Your task to perform on an android device: change alarm snooze length Image 0: 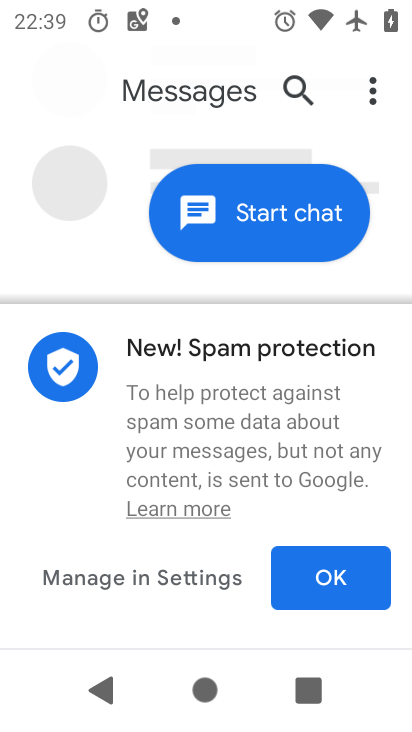
Step 0: press home button
Your task to perform on an android device: change alarm snooze length Image 1: 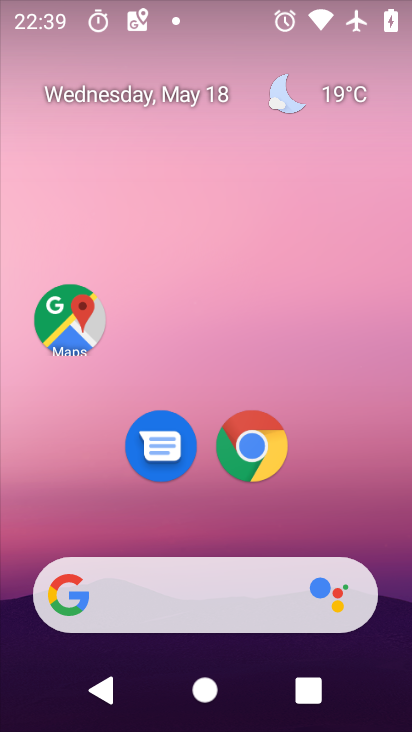
Step 1: drag from (127, 609) to (259, 167)
Your task to perform on an android device: change alarm snooze length Image 2: 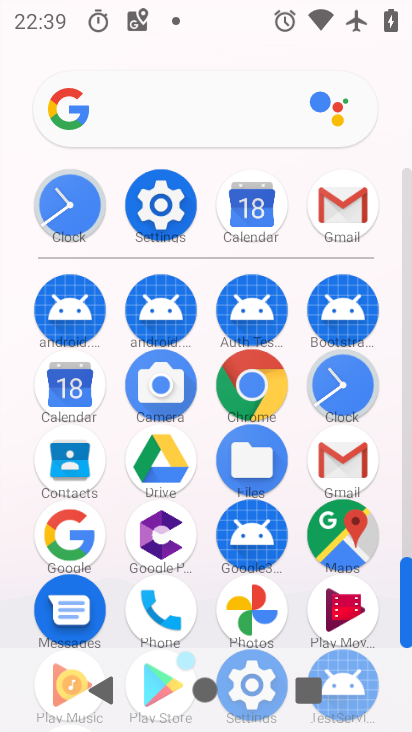
Step 2: click (85, 205)
Your task to perform on an android device: change alarm snooze length Image 3: 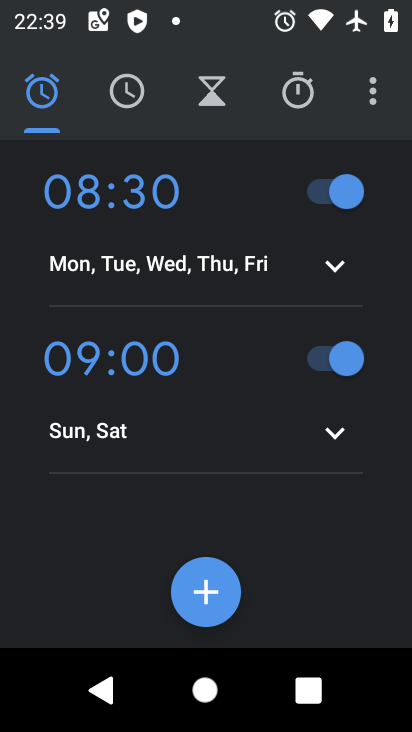
Step 3: click (370, 91)
Your task to perform on an android device: change alarm snooze length Image 4: 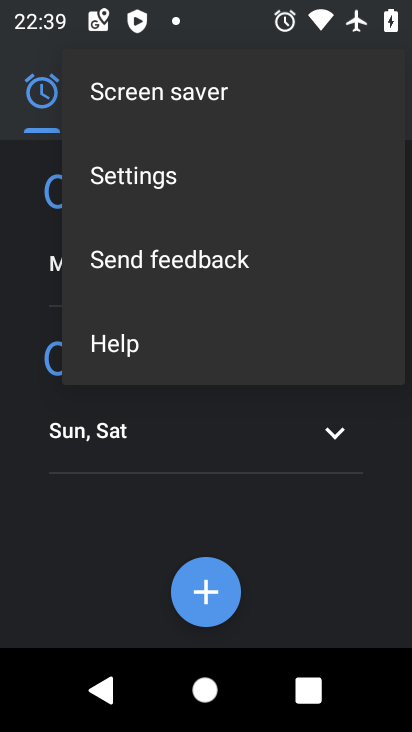
Step 4: click (159, 174)
Your task to perform on an android device: change alarm snooze length Image 5: 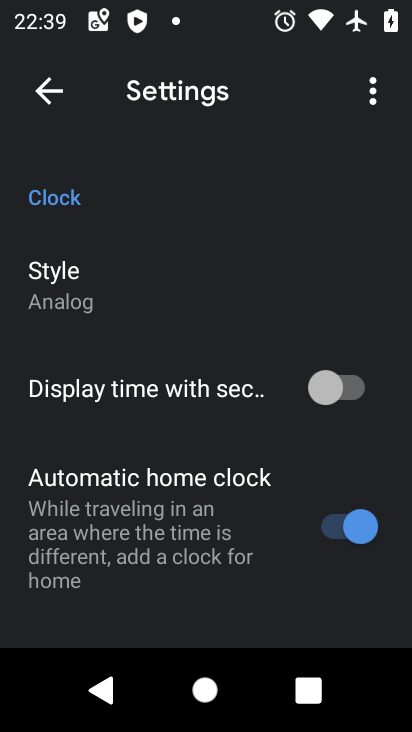
Step 5: drag from (165, 552) to (257, 128)
Your task to perform on an android device: change alarm snooze length Image 6: 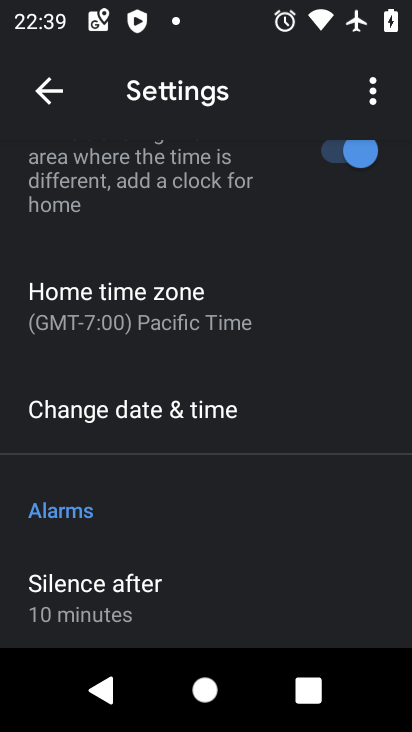
Step 6: drag from (234, 524) to (278, 201)
Your task to perform on an android device: change alarm snooze length Image 7: 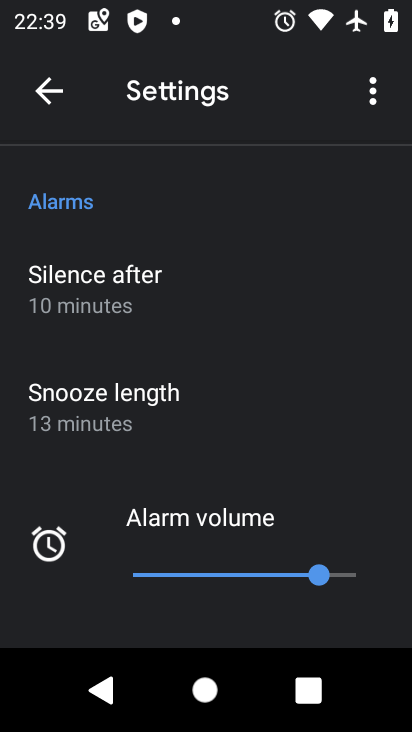
Step 7: click (125, 399)
Your task to perform on an android device: change alarm snooze length Image 8: 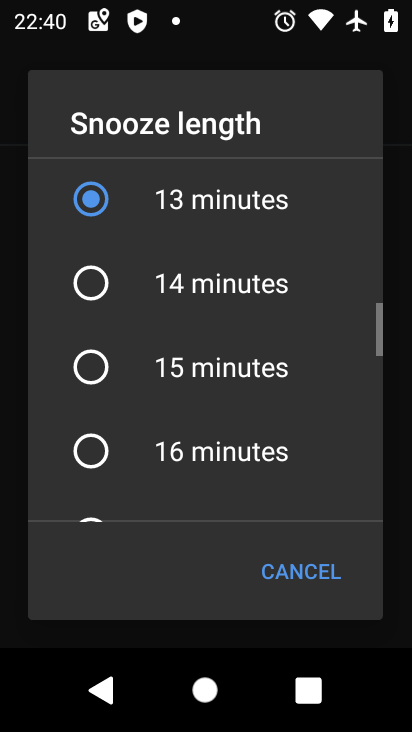
Step 8: click (90, 366)
Your task to perform on an android device: change alarm snooze length Image 9: 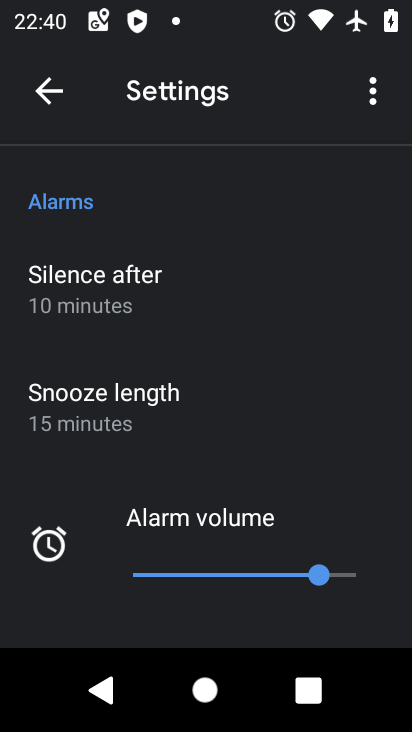
Step 9: task complete